Your task to perform on an android device: turn off notifications in google photos Image 0: 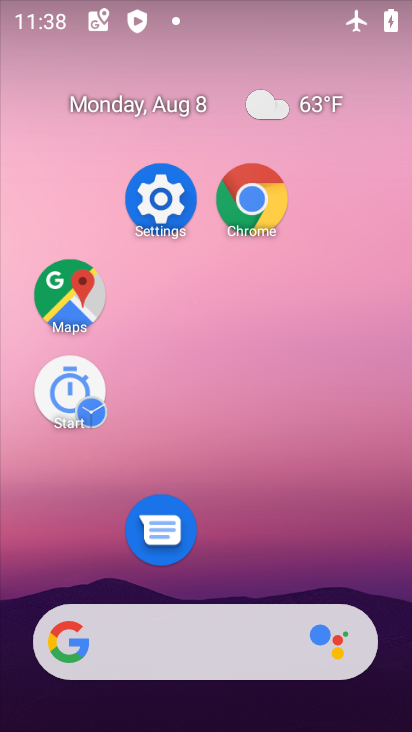
Step 0: drag from (241, 625) to (177, 213)
Your task to perform on an android device: turn off notifications in google photos Image 1: 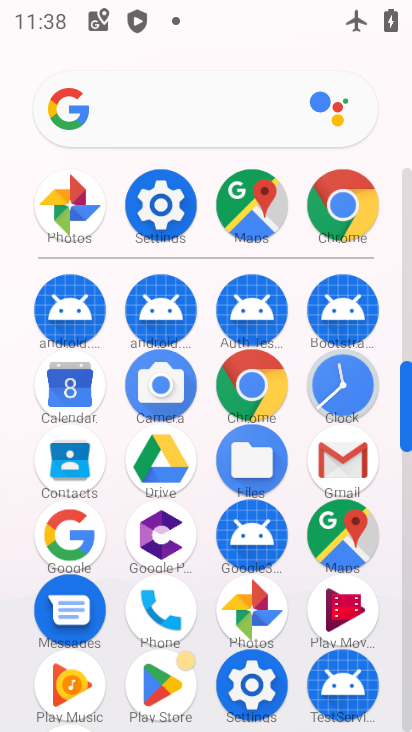
Step 1: click (258, 600)
Your task to perform on an android device: turn off notifications in google photos Image 2: 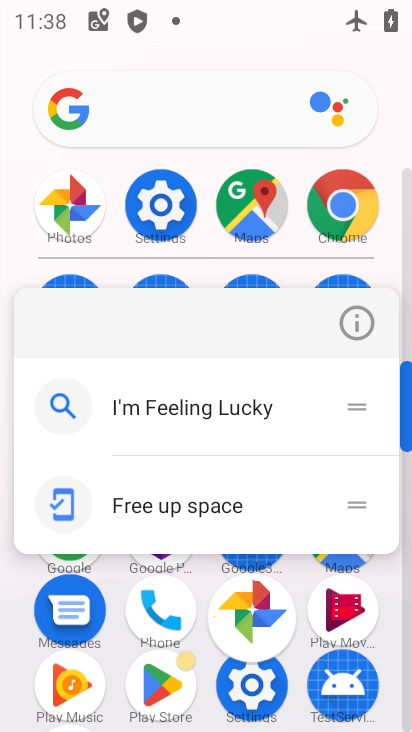
Step 2: click (259, 609)
Your task to perform on an android device: turn off notifications in google photos Image 3: 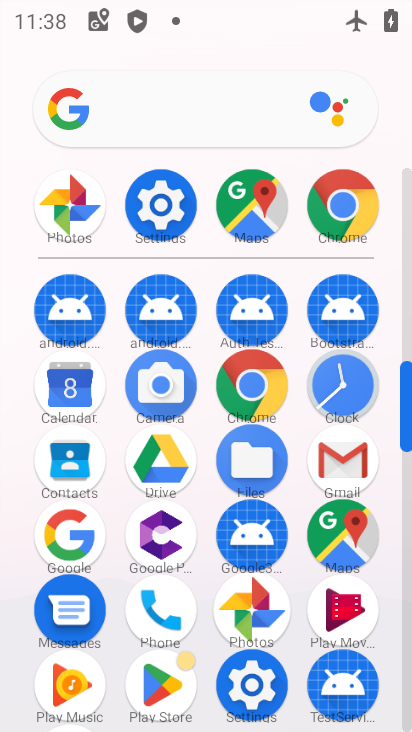
Step 3: click (257, 607)
Your task to perform on an android device: turn off notifications in google photos Image 4: 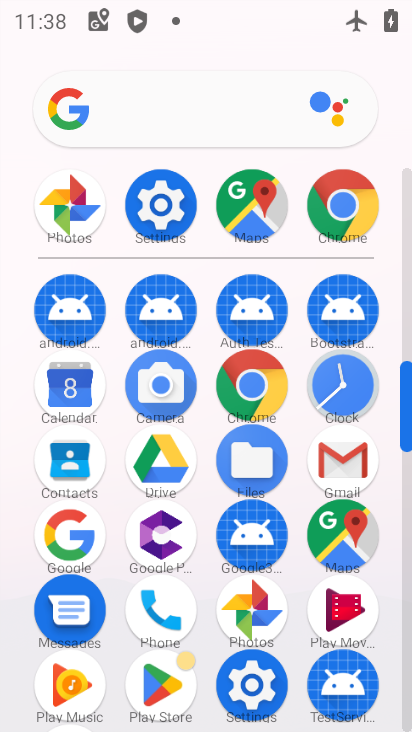
Step 4: click (255, 607)
Your task to perform on an android device: turn off notifications in google photos Image 5: 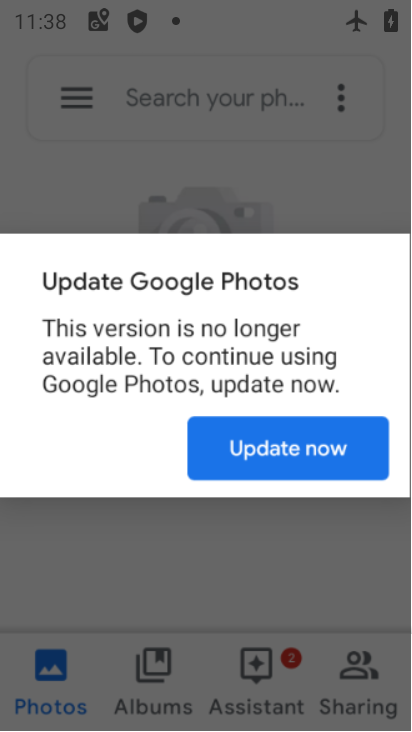
Step 5: click (253, 608)
Your task to perform on an android device: turn off notifications in google photos Image 6: 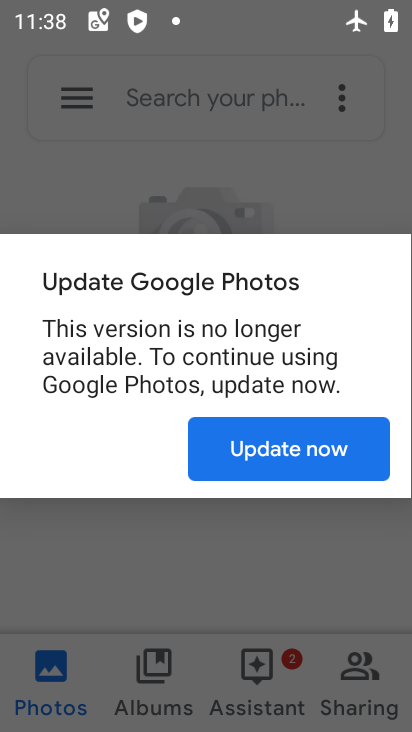
Step 6: click (307, 129)
Your task to perform on an android device: turn off notifications in google photos Image 7: 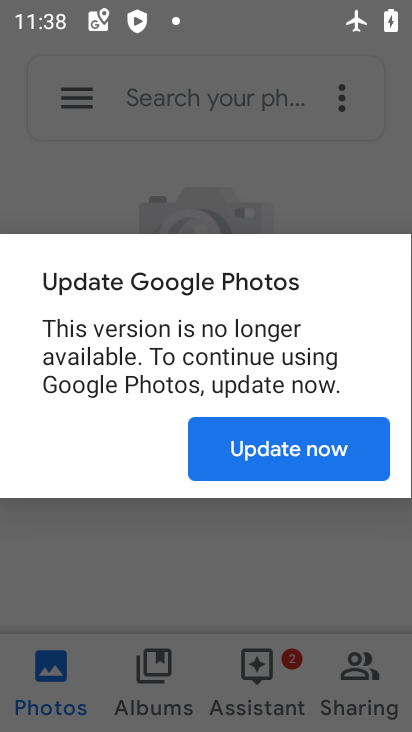
Step 7: press back button
Your task to perform on an android device: turn off notifications in google photos Image 8: 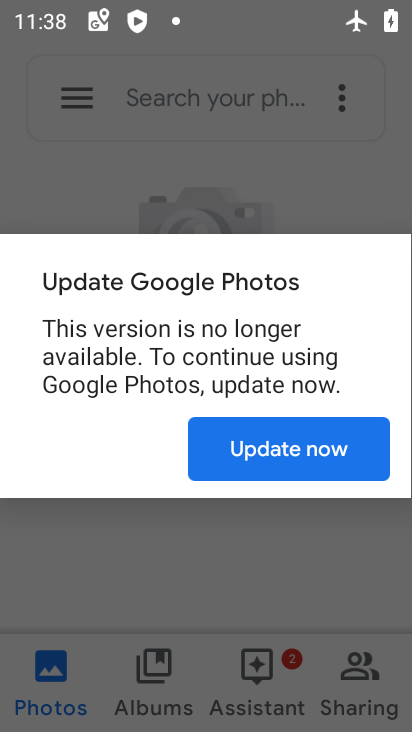
Step 8: click (249, 222)
Your task to perform on an android device: turn off notifications in google photos Image 9: 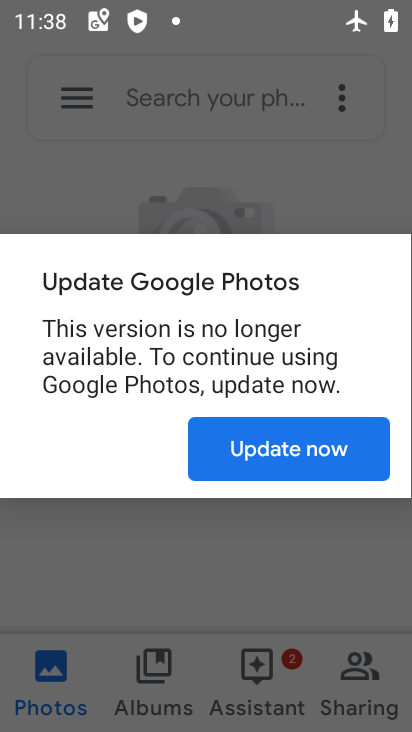
Step 9: click (251, 211)
Your task to perform on an android device: turn off notifications in google photos Image 10: 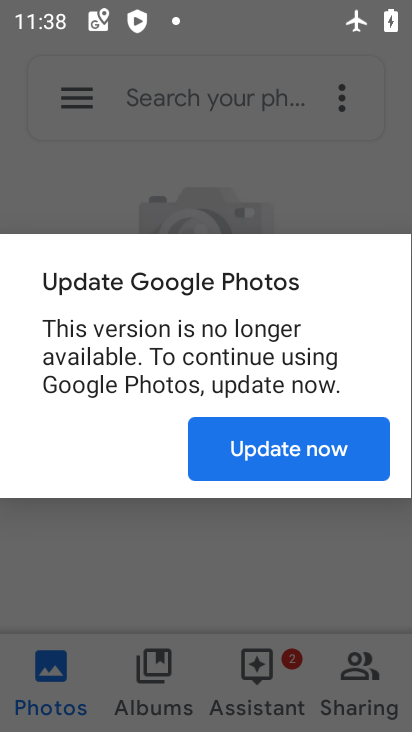
Step 10: click (254, 202)
Your task to perform on an android device: turn off notifications in google photos Image 11: 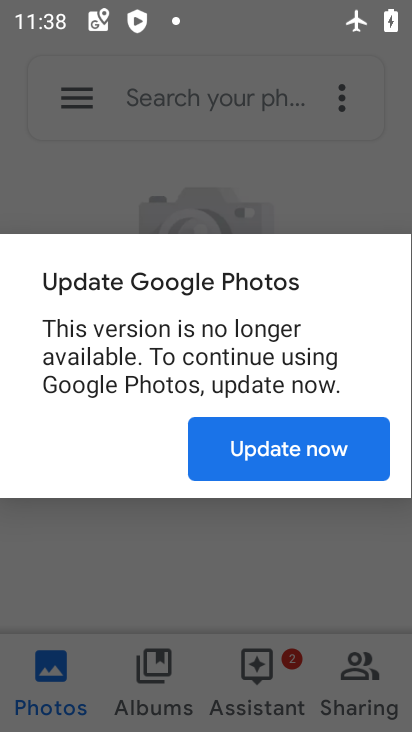
Step 11: click (254, 205)
Your task to perform on an android device: turn off notifications in google photos Image 12: 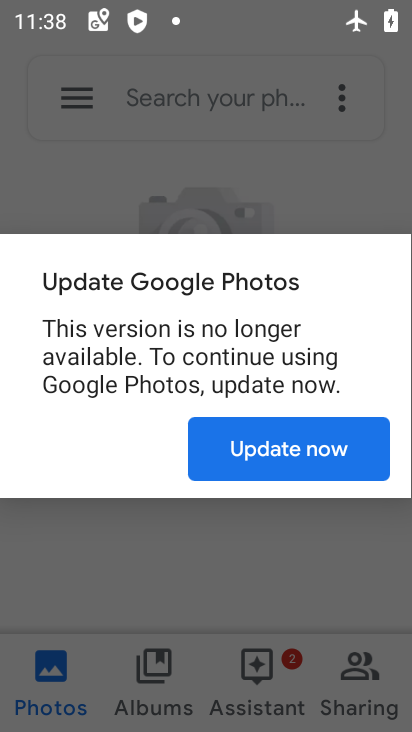
Step 12: click (254, 205)
Your task to perform on an android device: turn off notifications in google photos Image 13: 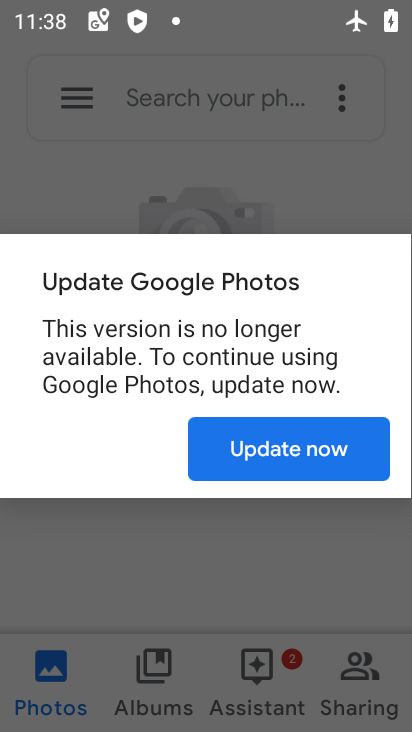
Step 13: press home button
Your task to perform on an android device: turn off notifications in google photos Image 14: 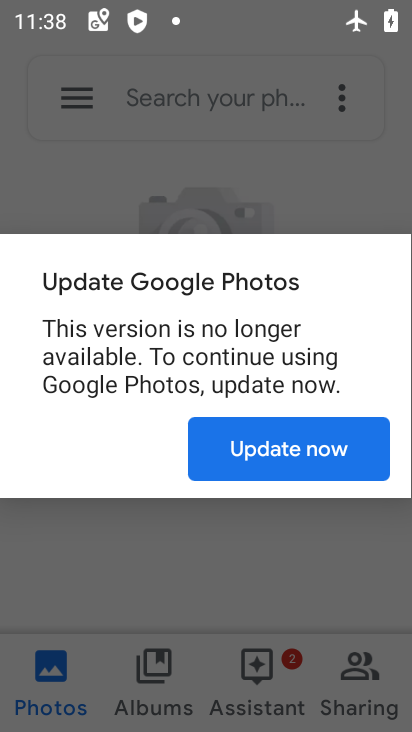
Step 14: press home button
Your task to perform on an android device: turn off notifications in google photos Image 15: 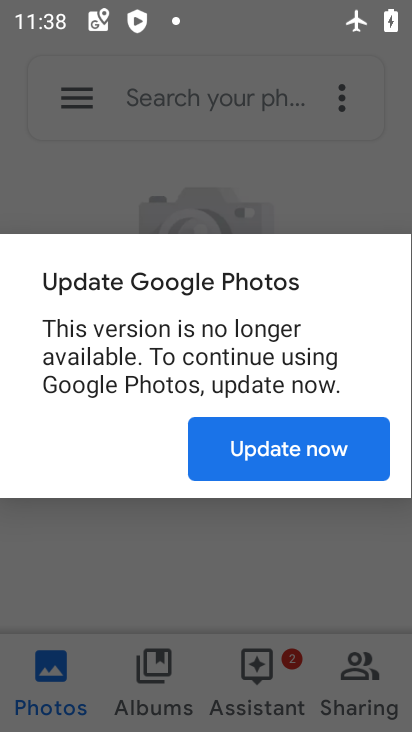
Step 15: click (278, 448)
Your task to perform on an android device: turn off notifications in google photos Image 16: 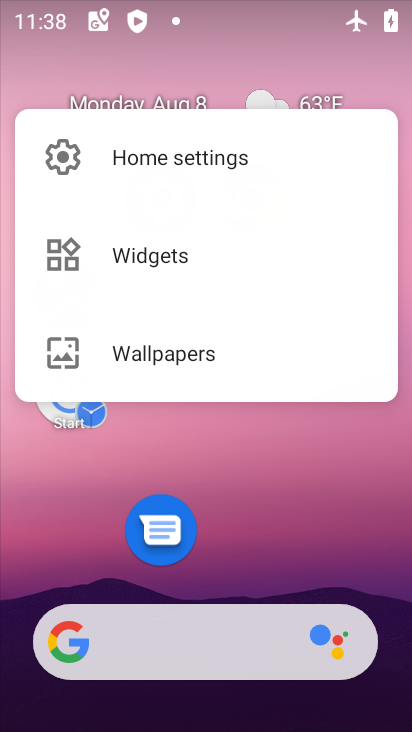
Step 16: click (277, 450)
Your task to perform on an android device: turn off notifications in google photos Image 17: 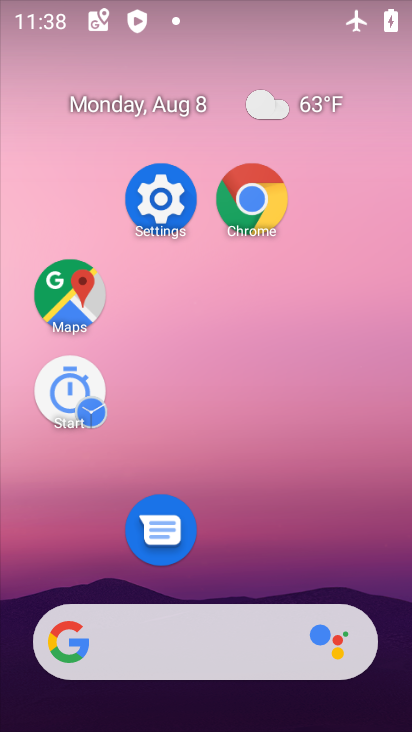
Step 17: drag from (257, 547) to (200, 221)
Your task to perform on an android device: turn off notifications in google photos Image 18: 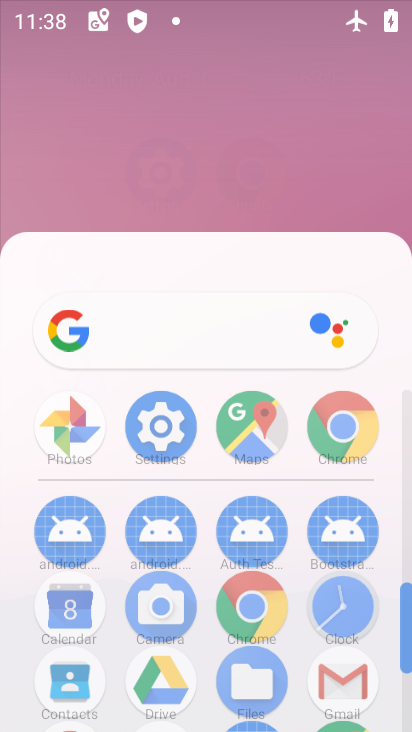
Step 18: drag from (200, 543) to (168, 237)
Your task to perform on an android device: turn off notifications in google photos Image 19: 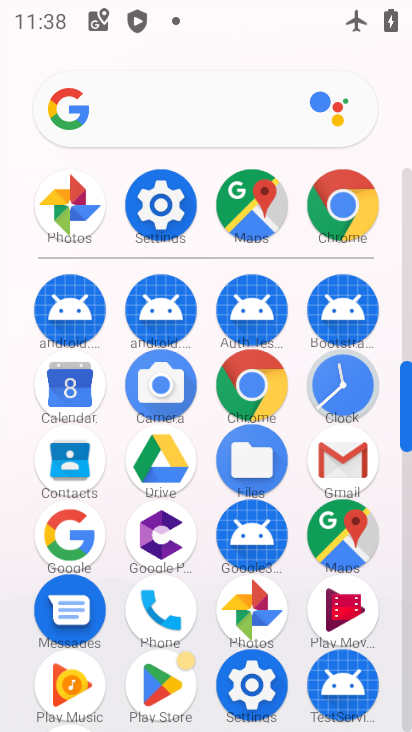
Step 19: click (266, 600)
Your task to perform on an android device: turn off notifications in google photos Image 20: 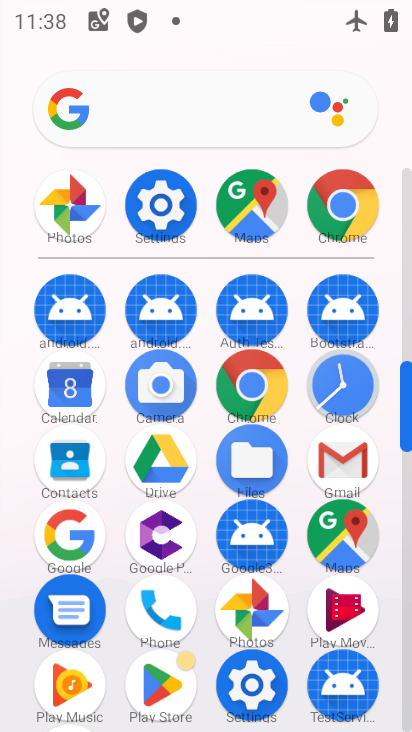
Step 20: click (252, 611)
Your task to perform on an android device: turn off notifications in google photos Image 21: 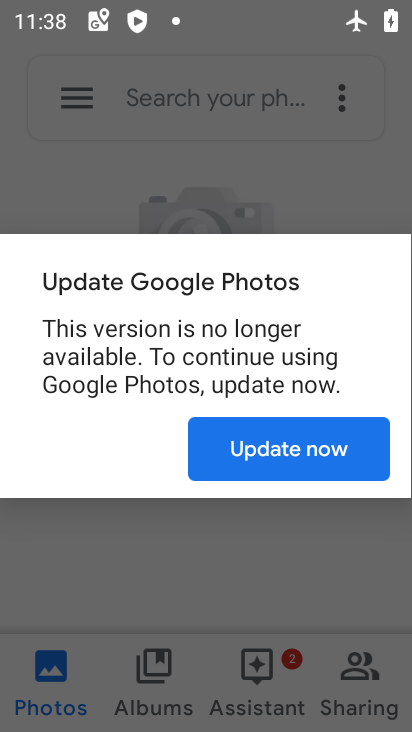
Step 21: click (124, 194)
Your task to perform on an android device: turn off notifications in google photos Image 22: 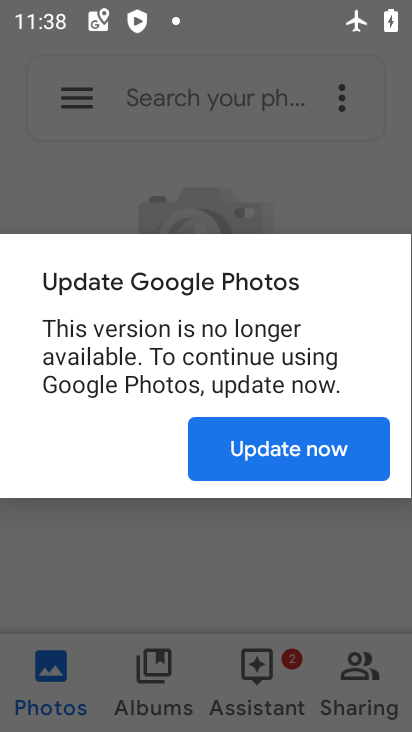
Step 22: click (126, 193)
Your task to perform on an android device: turn off notifications in google photos Image 23: 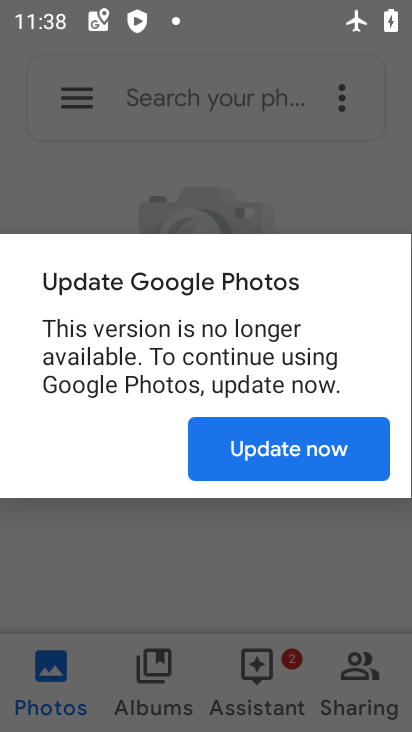
Step 23: click (127, 192)
Your task to perform on an android device: turn off notifications in google photos Image 24: 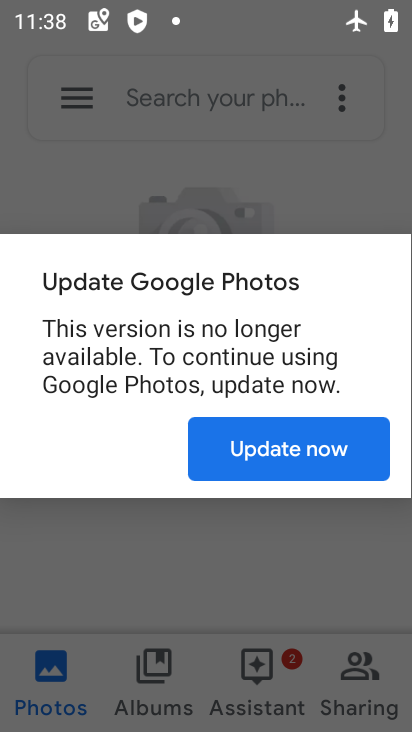
Step 24: click (127, 192)
Your task to perform on an android device: turn off notifications in google photos Image 25: 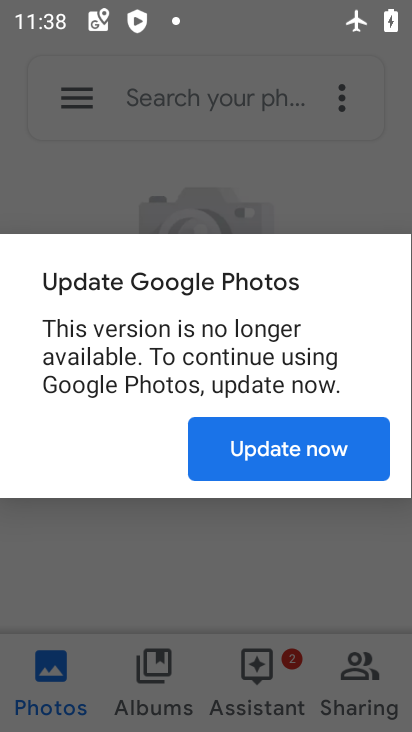
Step 25: click (273, 450)
Your task to perform on an android device: turn off notifications in google photos Image 26: 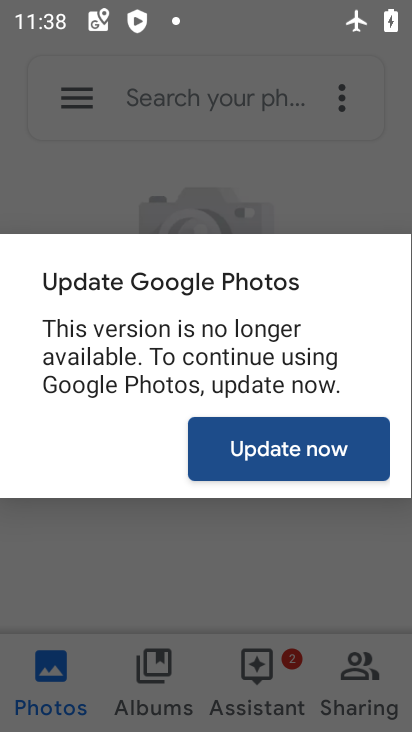
Step 26: click (274, 443)
Your task to perform on an android device: turn off notifications in google photos Image 27: 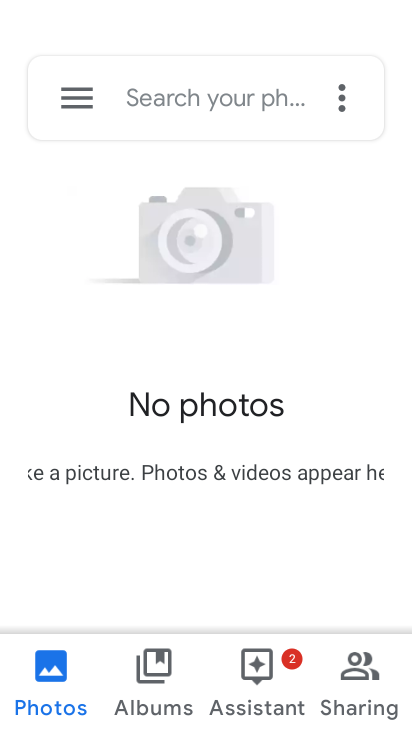
Step 27: click (277, 445)
Your task to perform on an android device: turn off notifications in google photos Image 28: 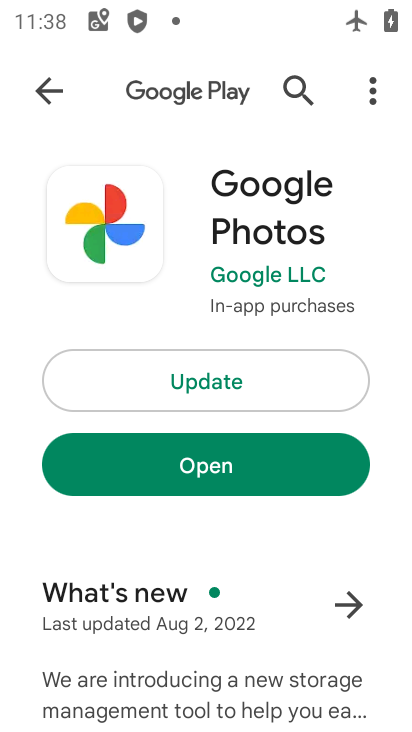
Step 28: click (44, 104)
Your task to perform on an android device: turn off notifications in google photos Image 29: 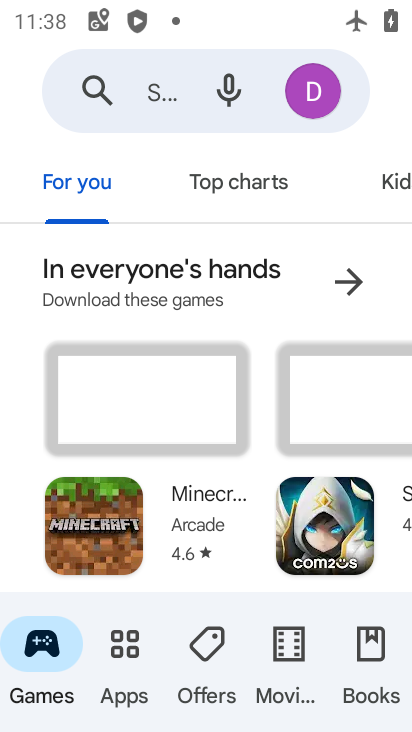
Step 29: press back button
Your task to perform on an android device: turn off notifications in google photos Image 30: 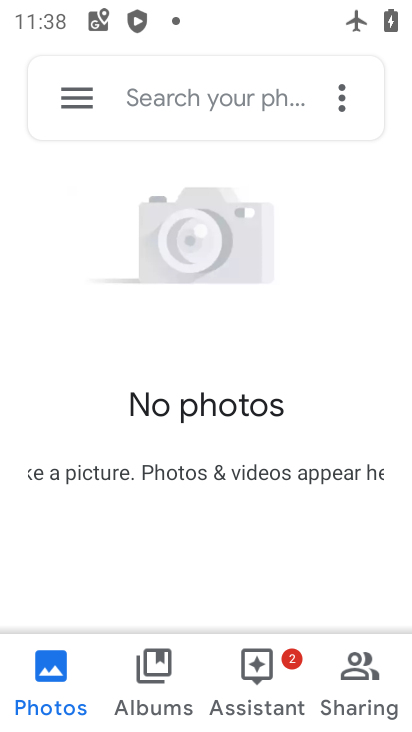
Step 30: click (57, 105)
Your task to perform on an android device: turn off notifications in google photos Image 31: 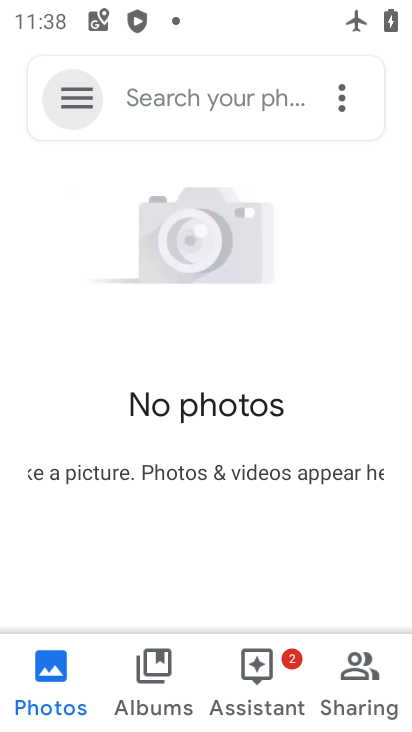
Step 31: click (57, 105)
Your task to perform on an android device: turn off notifications in google photos Image 32: 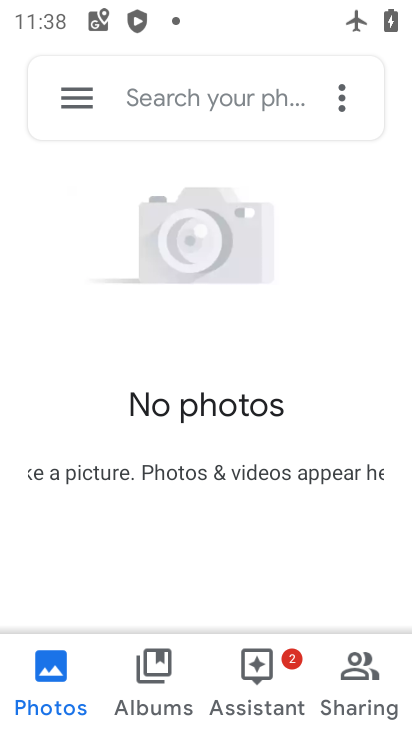
Step 32: click (76, 108)
Your task to perform on an android device: turn off notifications in google photos Image 33: 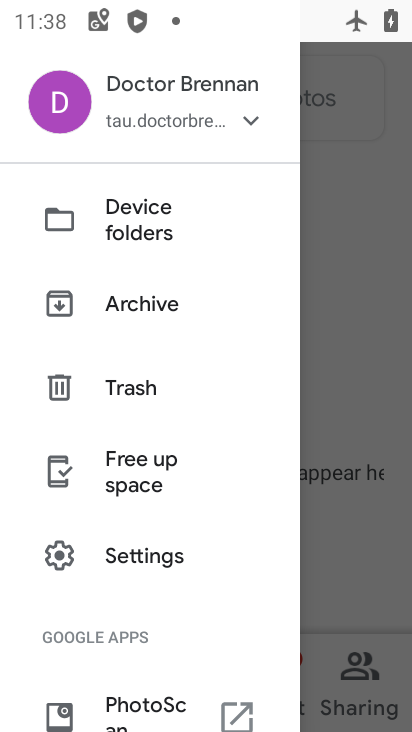
Step 33: click (148, 551)
Your task to perform on an android device: turn off notifications in google photos Image 34: 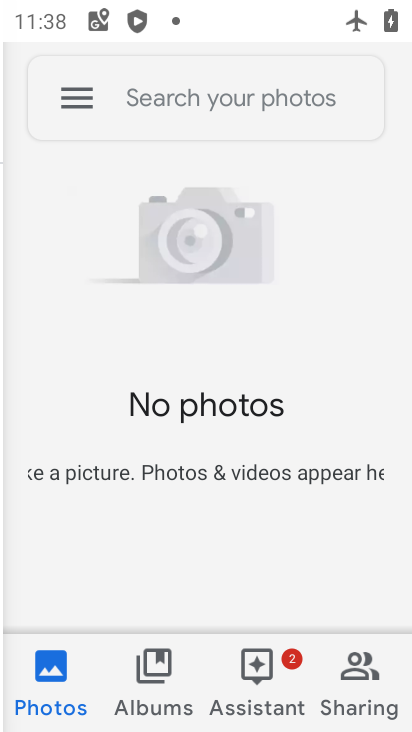
Step 34: click (145, 553)
Your task to perform on an android device: turn off notifications in google photos Image 35: 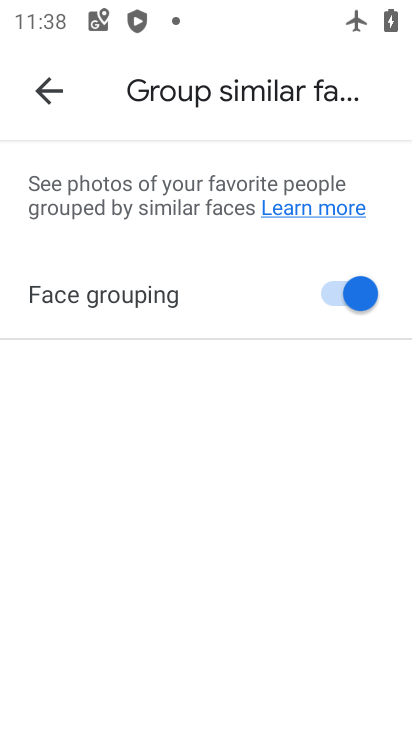
Step 35: click (41, 93)
Your task to perform on an android device: turn off notifications in google photos Image 36: 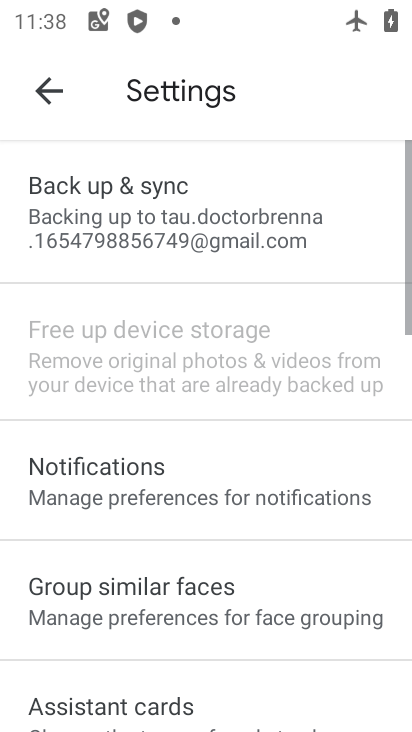
Step 36: click (127, 210)
Your task to perform on an android device: turn off notifications in google photos Image 37: 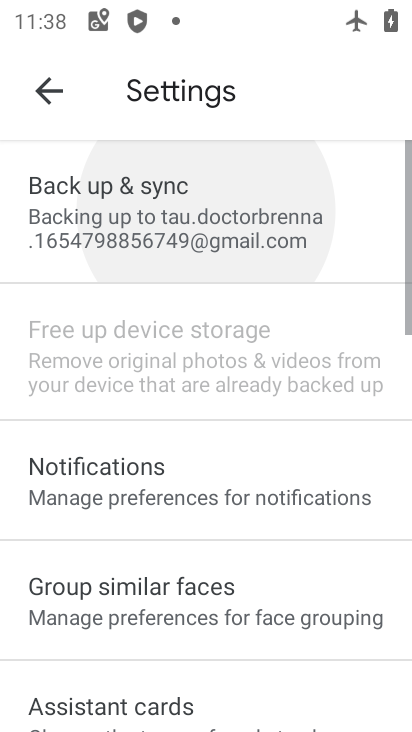
Step 37: click (129, 210)
Your task to perform on an android device: turn off notifications in google photos Image 38: 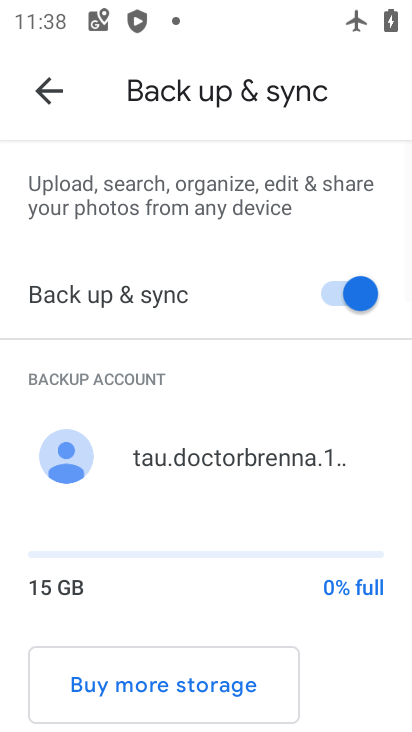
Step 38: click (29, 79)
Your task to perform on an android device: turn off notifications in google photos Image 39: 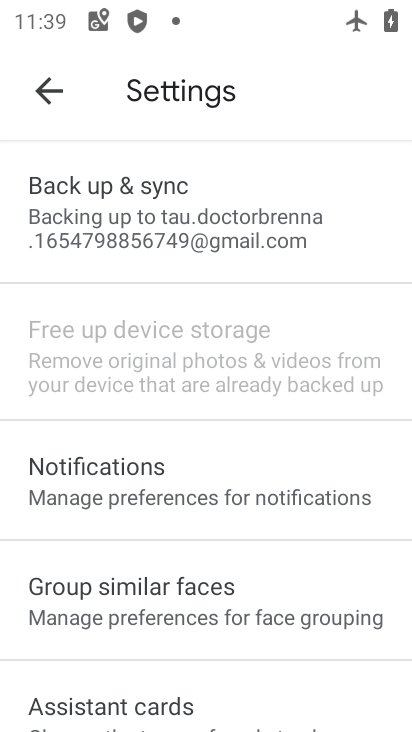
Step 39: click (96, 481)
Your task to perform on an android device: turn off notifications in google photos Image 40: 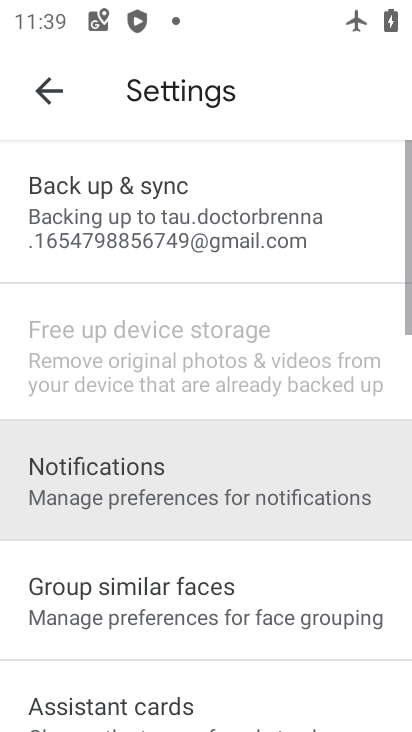
Step 40: click (95, 483)
Your task to perform on an android device: turn off notifications in google photos Image 41: 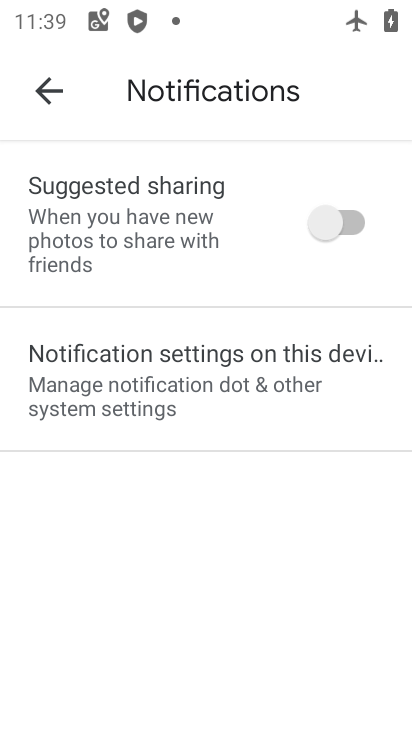
Step 41: click (262, 373)
Your task to perform on an android device: turn off notifications in google photos Image 42: 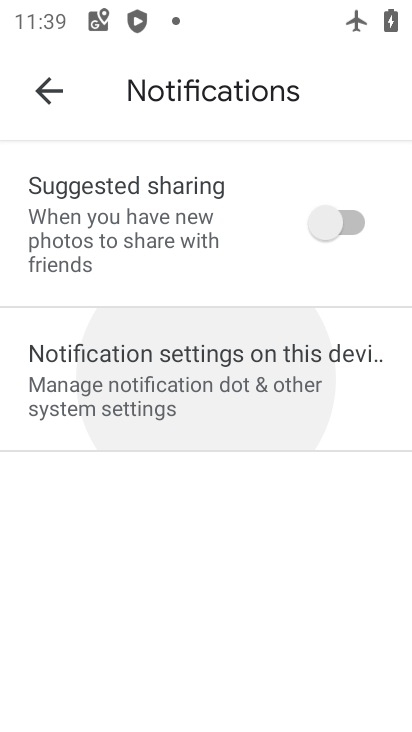
Step 42: click (261, 371)
Your task to perform on an android device: turn off notifications in google photos Image 43: 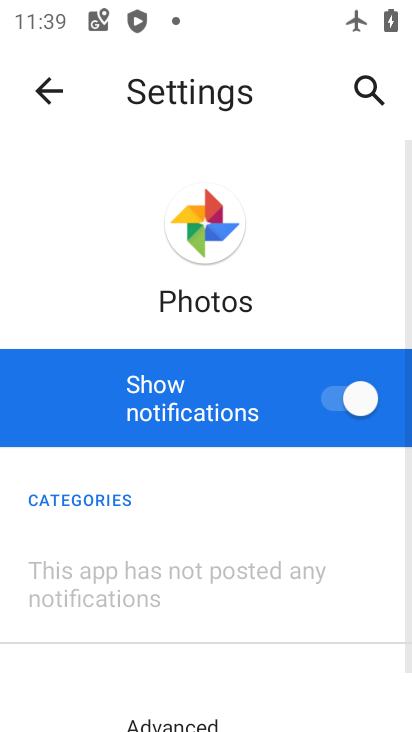
Step 43: click (372, 399)
Your task to perform on an android device: turn off notifications in google photos Image 44: 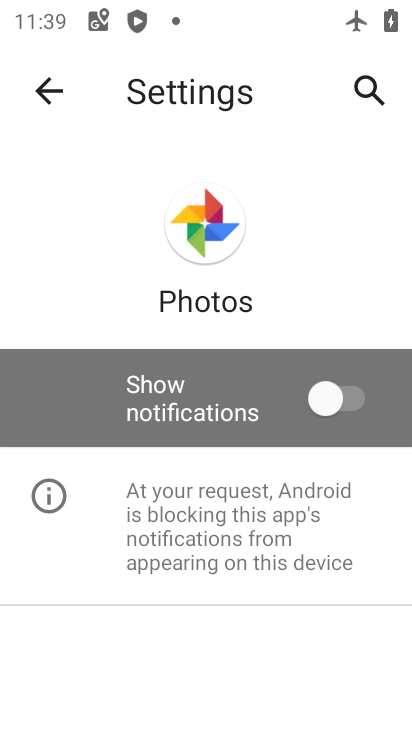
Step 44: task complete